Your task to perform on an android device: Open sound settings Image 0: 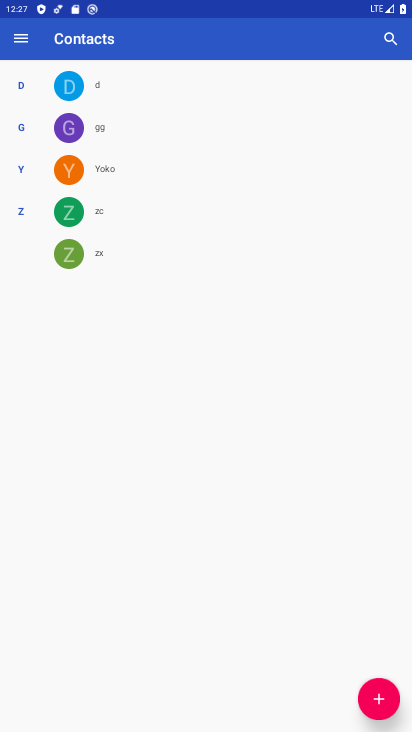
Step 0: press home button
Your task to perform on an android device: Open sound settings Image 1: 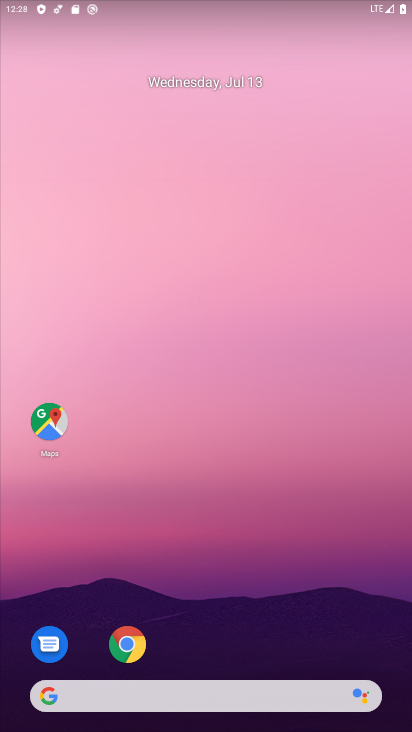
Step 1: drag from (225, 144) to (228, 4)
Your task to perform on an android device: Open sound settings Image 2: 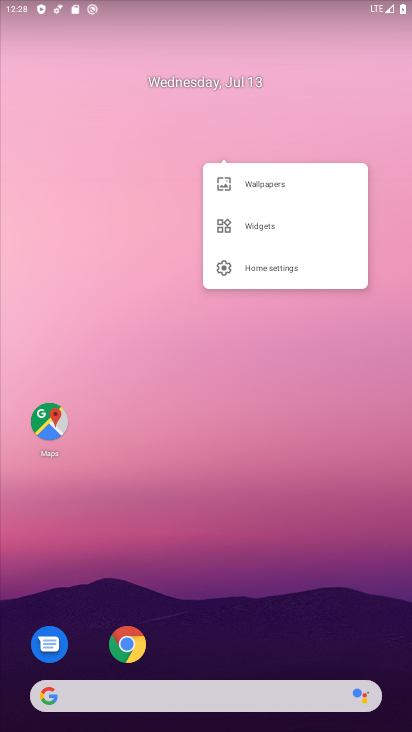
Step 2: click (131, 622)
Your task to perform on an android device: Open sound settings Image 3: 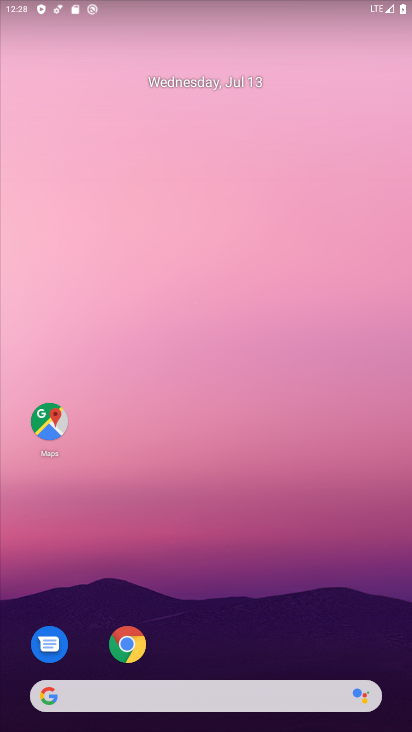
Step 3: click (173, 607)
Your task to perform on an android device: Open sound settings Image 4: 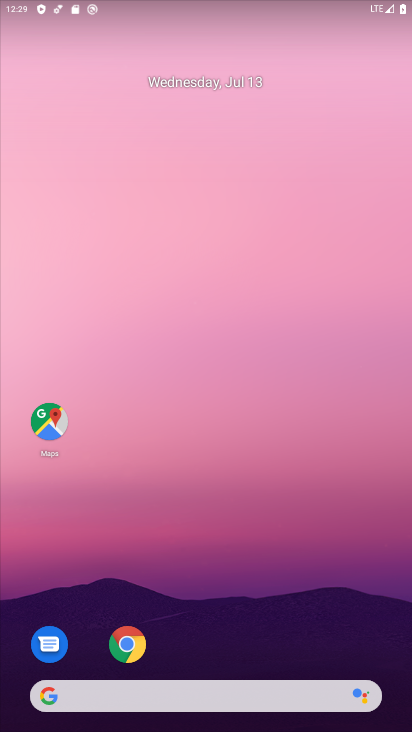
Step 4: drag from (175, 543) to (225, 102)
Your task to perform on an android device: Open sound settings Image 5: 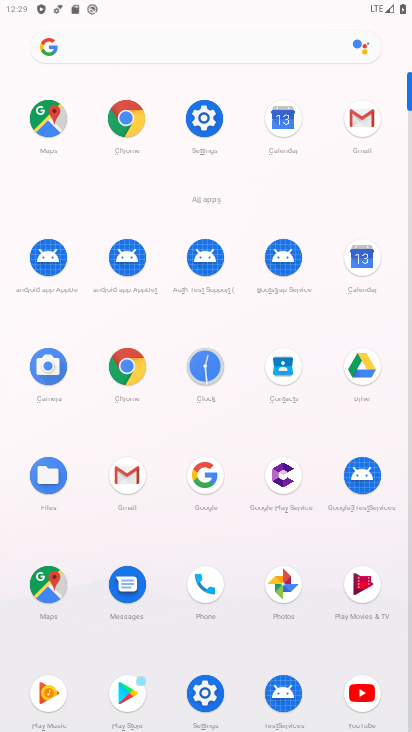
Step 5: click (195, 141)
Your task to perform on an android device: Open sound settings Image 6: 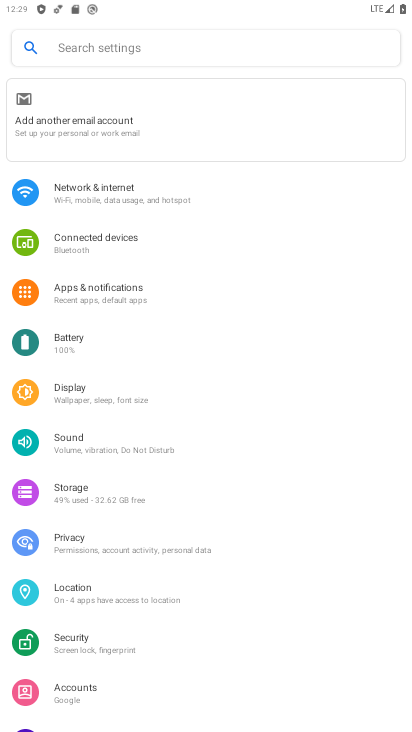
Step 6: click (72, 440)
Your task to perform on an android device: Open sound settings Image 7: 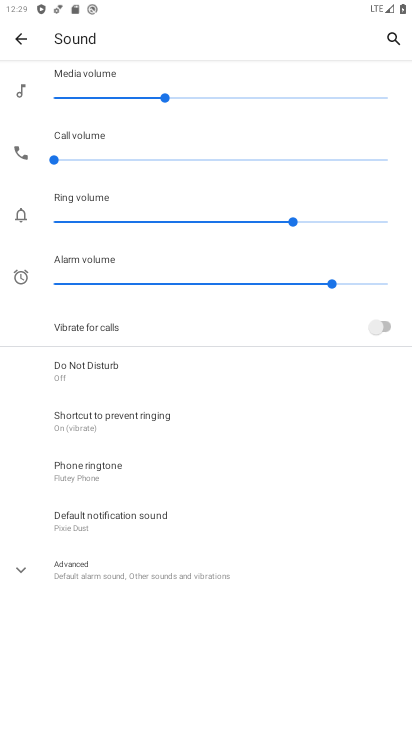
Step 7: task complete